Your task to perform on an android device: turn off location Image 0: 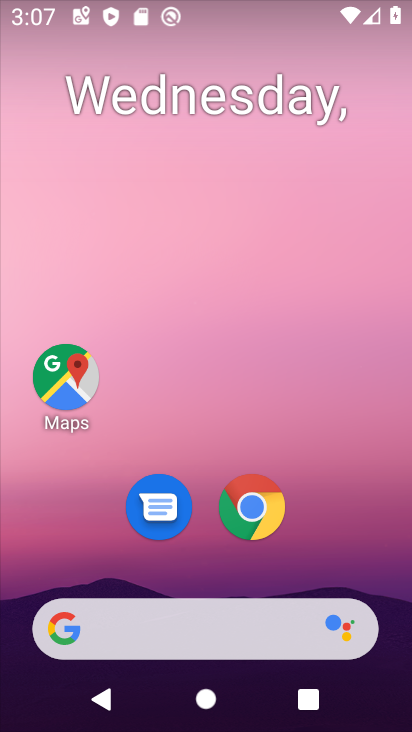
Step 0: click (306, 199)
Your task to perform on an android device: turn off location Image 1: 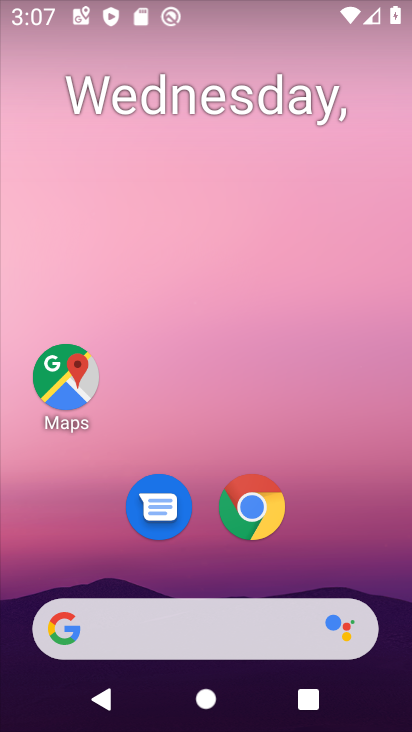
Step 1: drag from (332, 587) to (314, 73)
Your task to perform on an android device: turn off location Image 2: 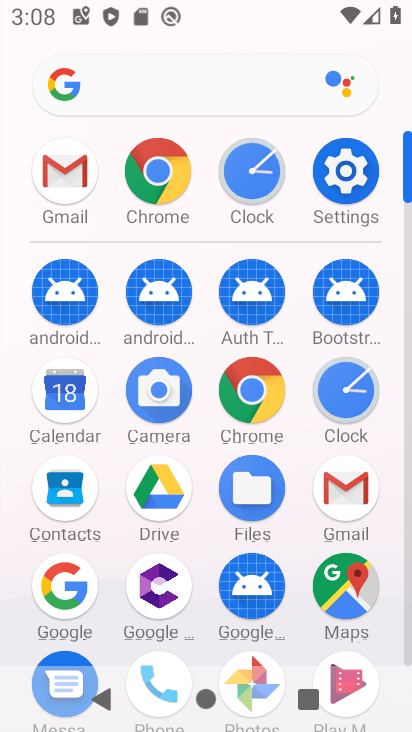
Step 2: click (320, 166)
Your task to perform on an android device: turn off location Image 3: 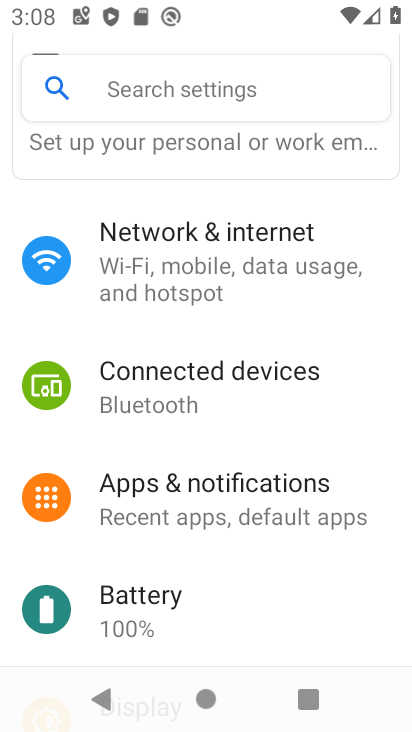
Step 3: drag from (316, 507) to (301, 246)
Your task to perform on an android device: turn off location Image 4: 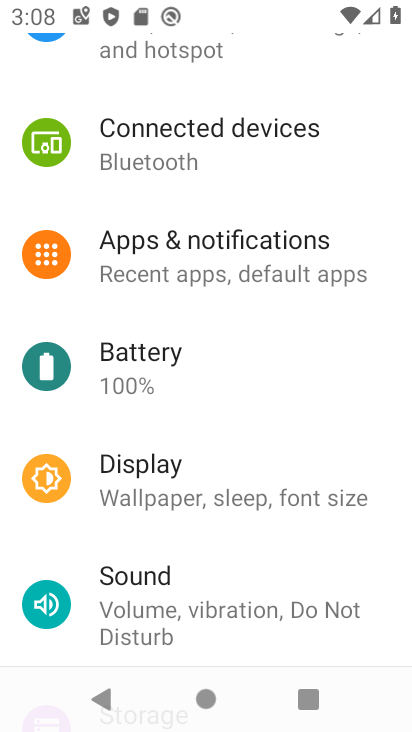
Step 4: drag from (204, 587) to (212, 218)
Your task to perform on an android device: turn off location Image 5: 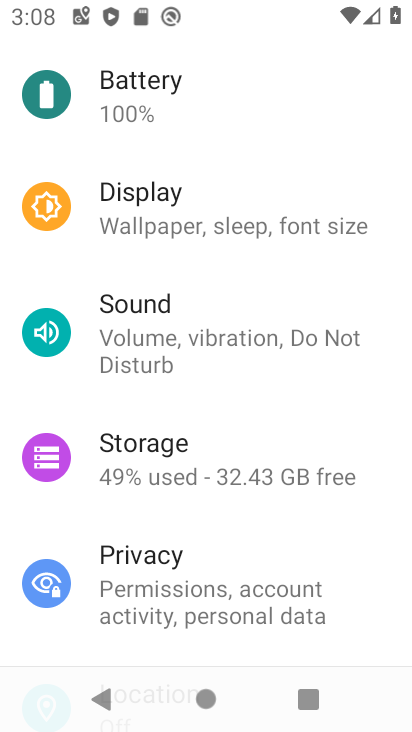
Step 5: drag from (172, 588) to (188, 240)
Your task to perform on an android device: turn off location Image 6: 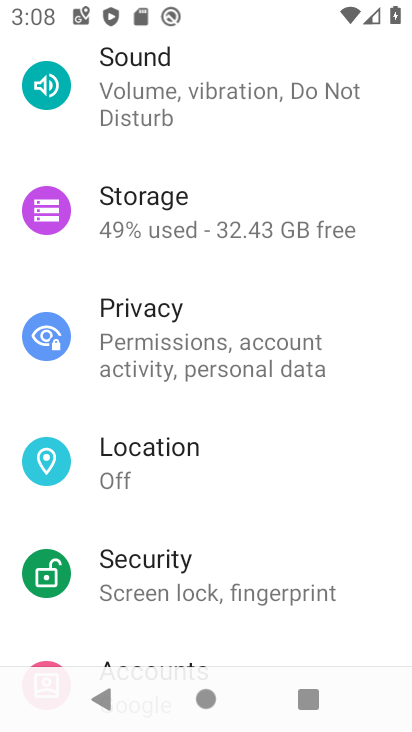
Step 6: click (213, 466)
Your task to perform on an android device: turn off location Image 7: 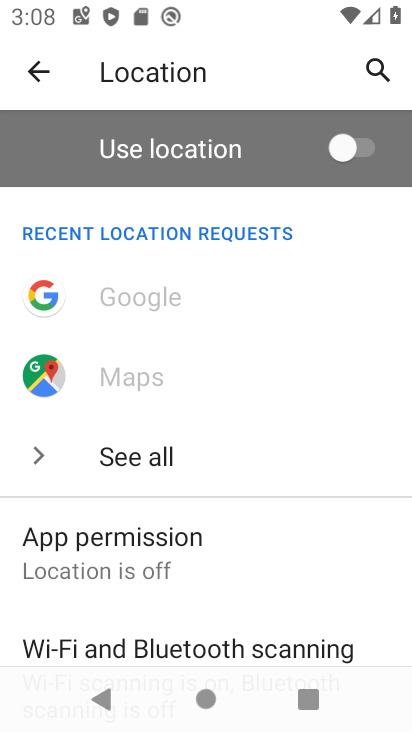
Step 7: task complete